Your task to perform on an android device: check battery use Image 0: 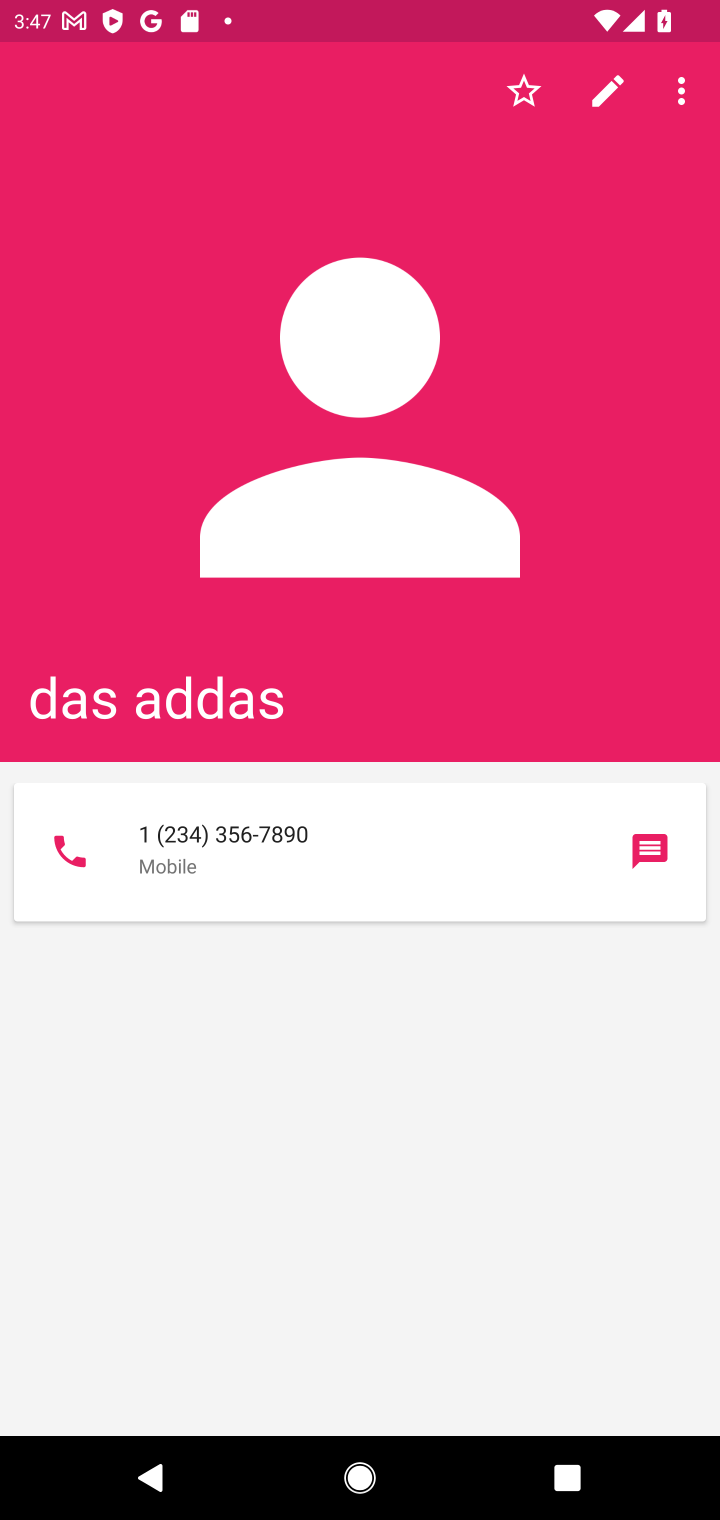
Step 0: press home button
Your task to perform on an android device: check battery use Image 1: 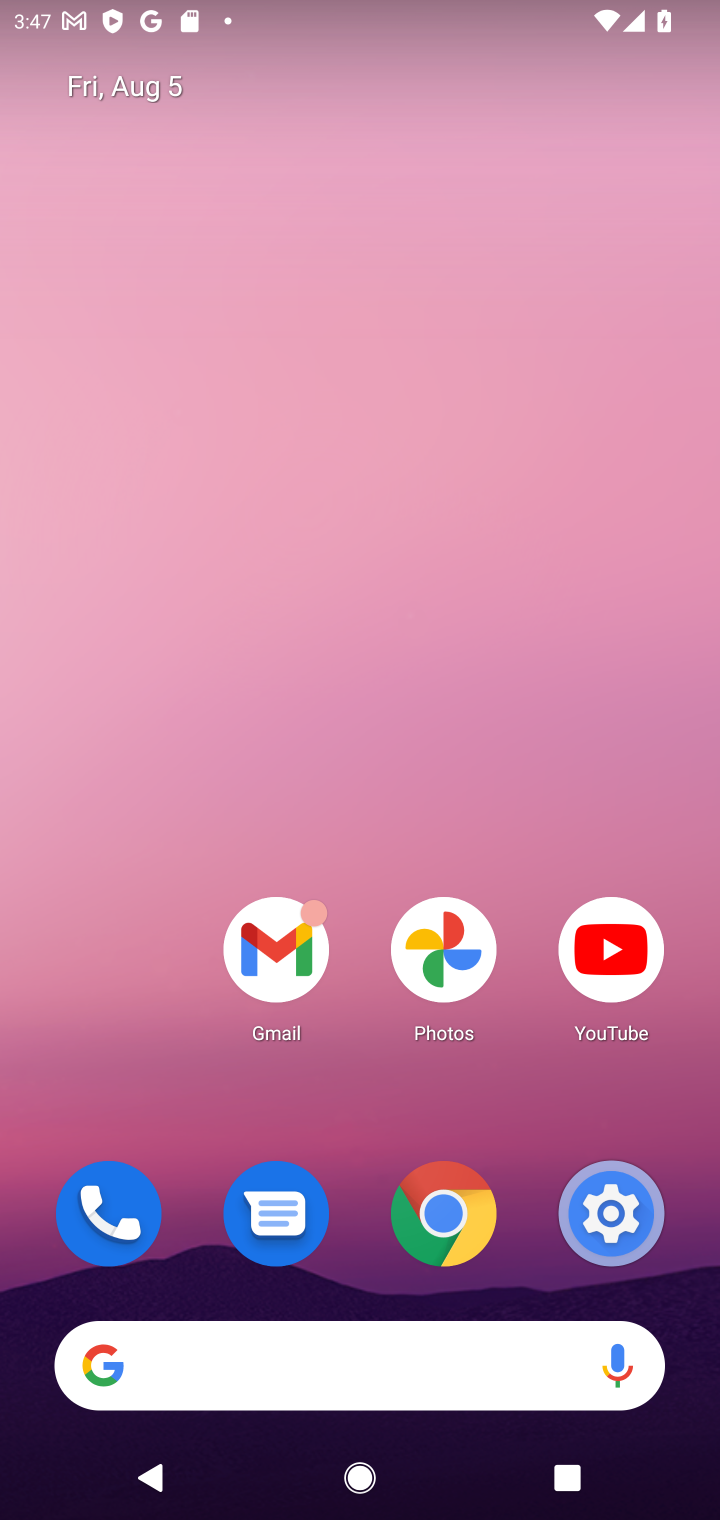
Step 1: click (607, 1235)
Your task to perform on an android device: check battery use Image 2: 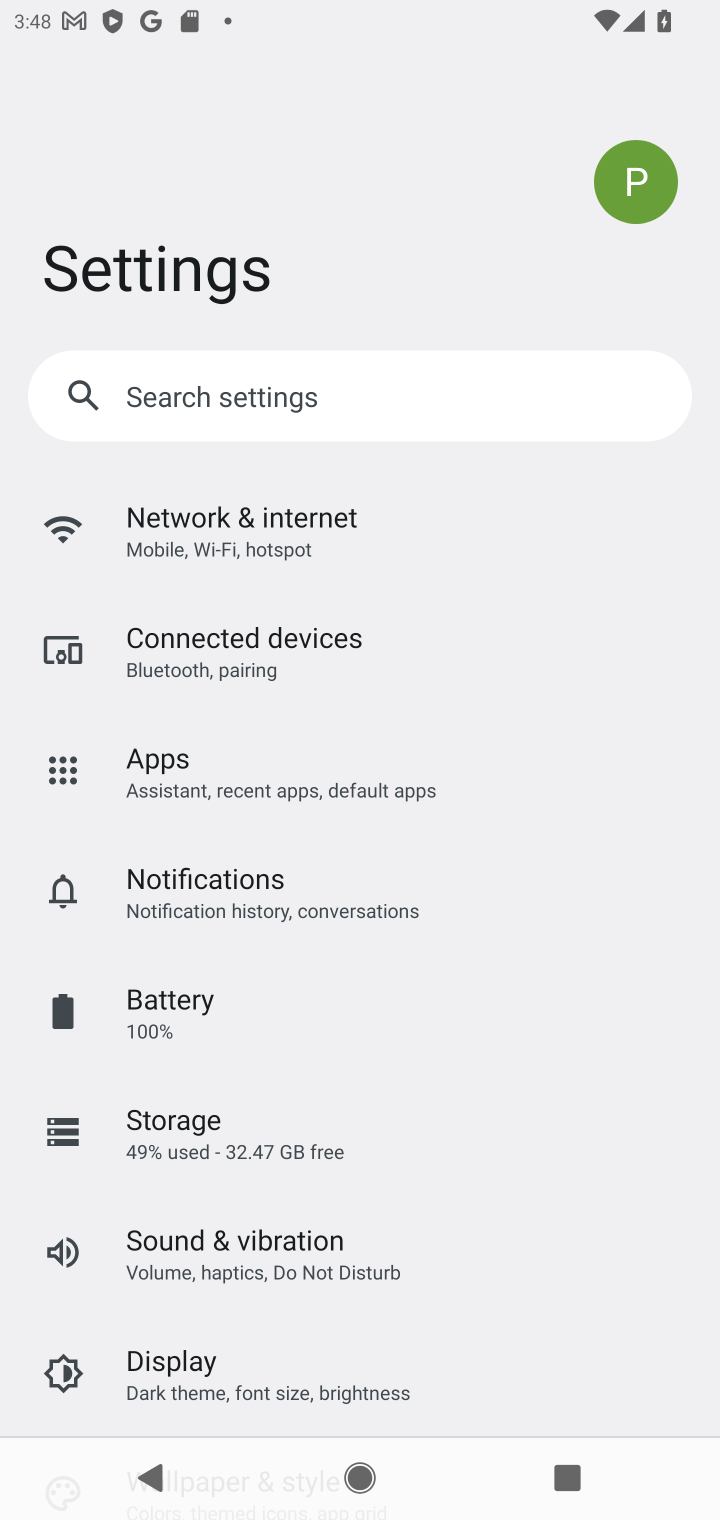
Step 2: click (316, 1038)
Your task to perform on an android device: check battery use Image 3: 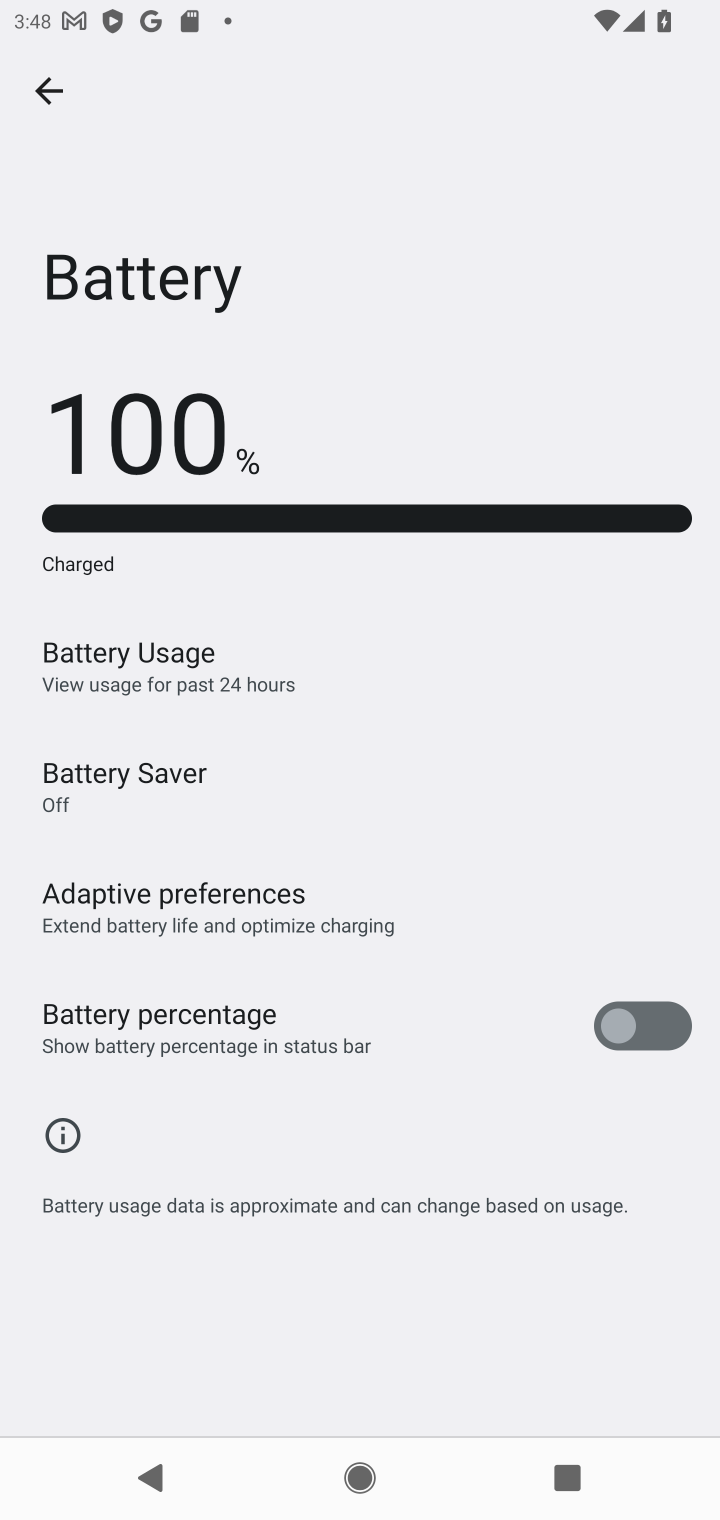
Step 3: task complete